Your task to perform on an android device: Open the calendar and show me this week's events? Image 0: 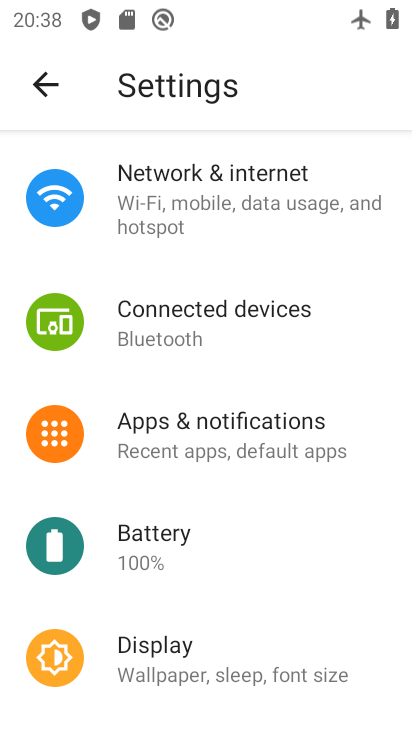
Step 0: press home button
Your task to perform on an android device: Open the calendar and show me this week's events? Image 1: 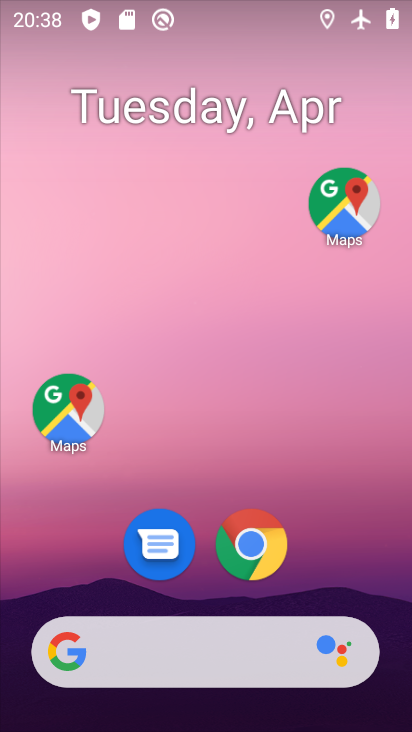
Step 1: drag from (181, 653) to (352, 76)
Your task to perform on an android device: Open the calendar and show me this week's events? Image 2: 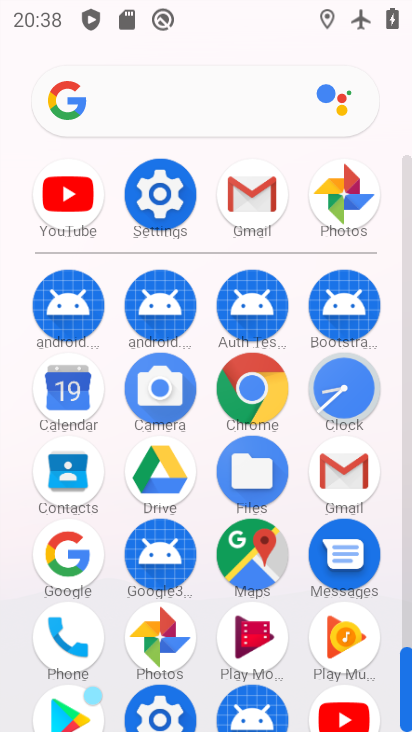
Step 2: click (72, 404)
Your task to perform on an android device: Open the calendar and show me this week's events? Image 3: 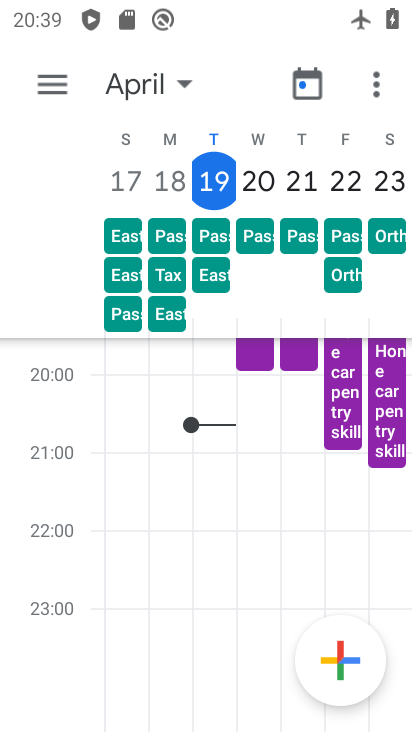
Step 3: click (126, 81)
Your task to perform on an android device: Open the calendar and show me this week's events? Image 4: 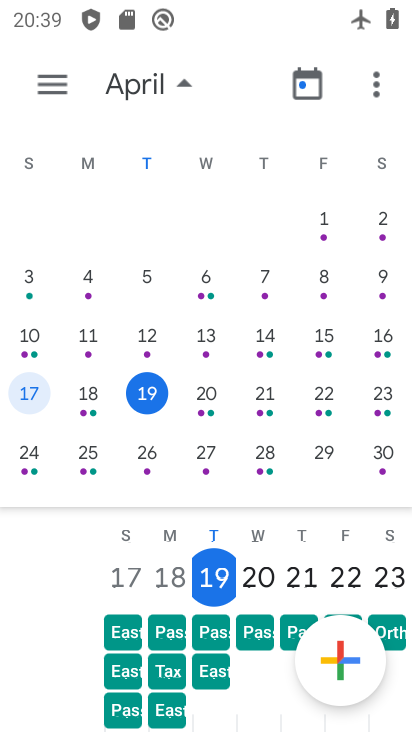
Step 4: click (53, 73)
Your task to perform on an android device: Open the calendar and show me this week's events? Image 5: 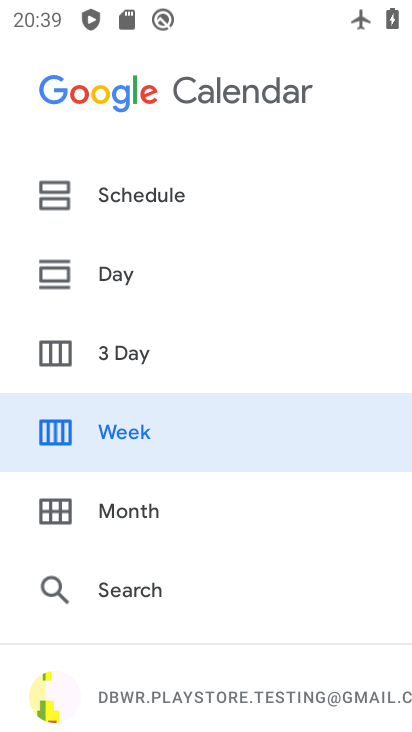
Step 5: click (127, 438)
Your task to perform on an android device: Open the calendar and show me this week's events? Image 6: 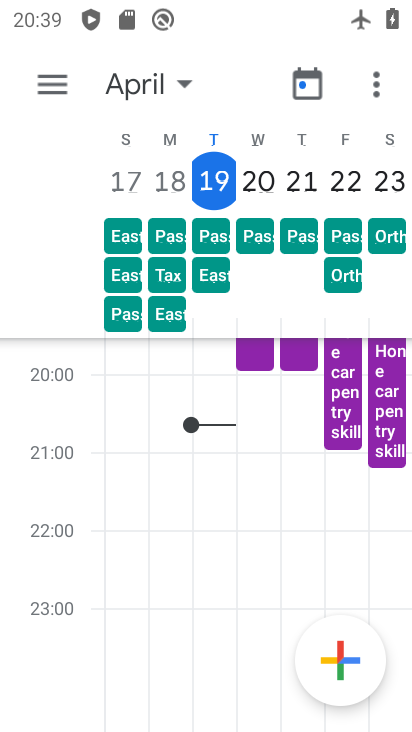
Step 6: task complete